Your task to perform on an android device: Empty the shopping cart on target.com. Search for macbook pro 13 inch on target.com, select the first entry, and add it to the cart. Image 0: 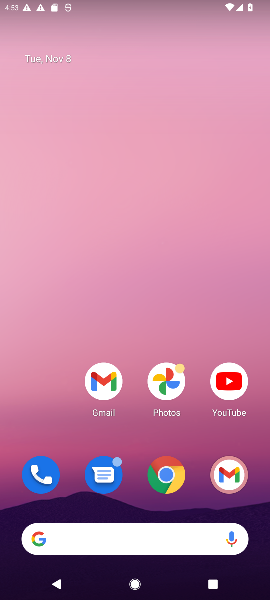
Step 0: drag from (81, 548) to (94, 158)
Your task to perform on an android device: Empty the shopping cart on target.com. Search for macbook pro 13 inch on target.com, select the first entry, and add it to the cart. Image 1: 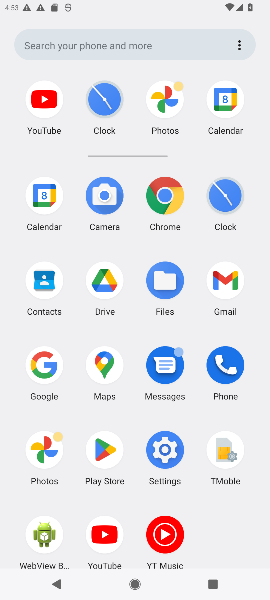
Step 1: click (30, 362)
Your task to perform on an android device: Empty the shopping cart on target.com. Search for macbook pro 13 inch on target.com, select the first entry, and add it to the cart. Image 2: 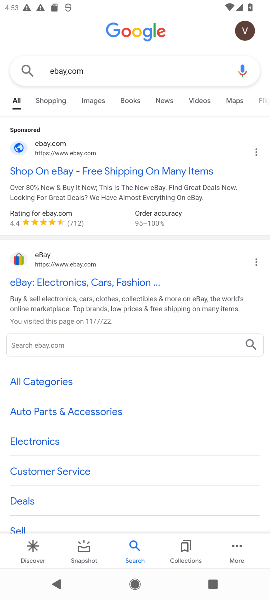
Step 2: click (138, 61)
Your task to perform on an android device: Empty the shopping cart on target.com. Search for macbook pro 13 inch on target.com, select the first entry, and add it to the cart. Image 3: 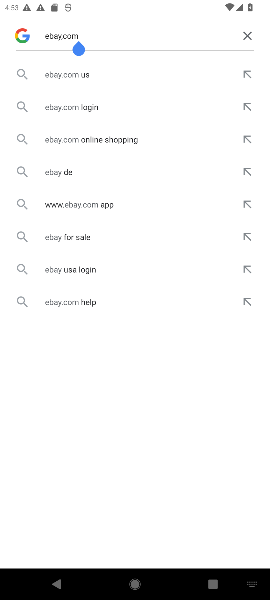
Step 3: click (247, 36)
Your task to perform on an android device: Empty the shopping cart on target.com. Search for macbook pro 13 inch on target.com, select the first entry, and add it to the cart. Image 4: 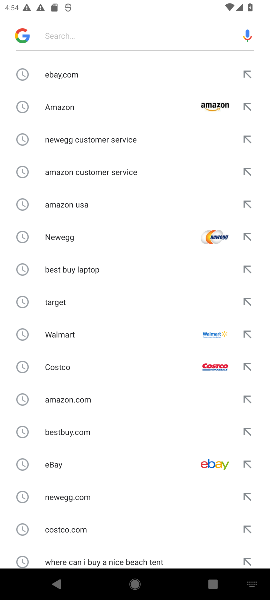
Step 4: click (132, 29)
Your task to perform on an android device: Empty the shopping cart on target.com. Search for macbook pro 13 inch on target.com, select the first entry, and add it to the cart. Image 5: 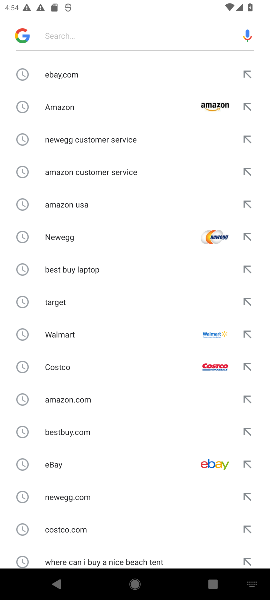
Step 5: type "target "
Your task to perform on an android device: Empty the shopping cart on target.com. Search for macbook pro 13 inch on target.com, select the first entry, and add it to the cart. Image 6: 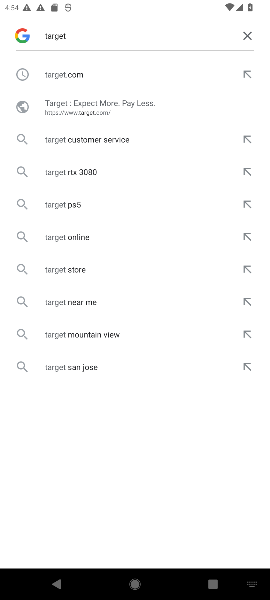
Step 6: click (69, 66)
Your task to perform on an android device: Empty the shopping cart on target.com. Search for macbook pro 13 inch on target.com, select the first entry, and add it to the cart. Image 7: 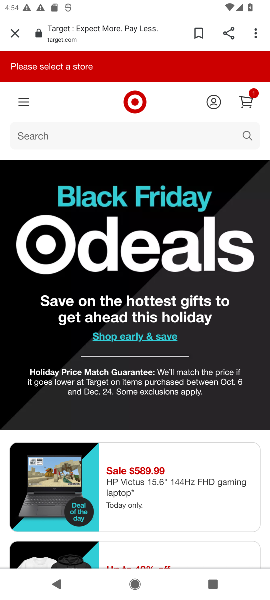
Step 7: click (109, 136)
Your task to perform on an android device: Empty the shopping cart on target.com. Search for macbook pro 13 inch on target.com, select the first entry, and add it to the cart. Image 8: 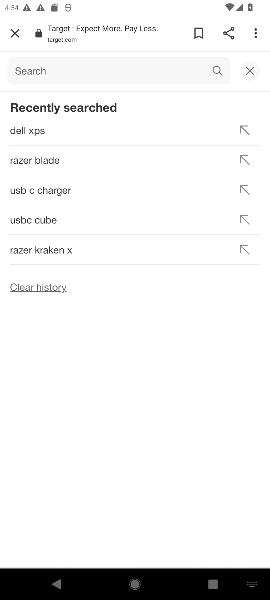
Step 8: type "macbook pro 13 inch  "
Your task to perform on an android device: Empty the shopping cart on target.com. Search for macbook pro 13 inch on target.com, select the first entry, and add it to the cart. Image 9: 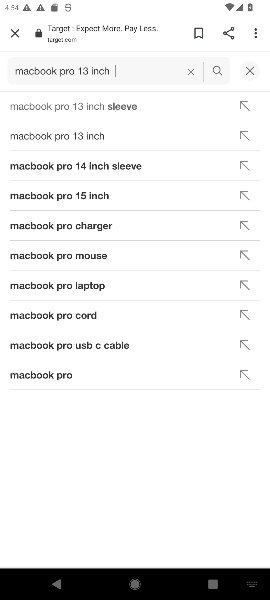
Step 9: click (65, 136)
Your task to perform on an android device: Empty the shopping cart on target.com. Search for macbook pro 13 inch on target.com, select the first entry, and add it to the cart. Image 10: 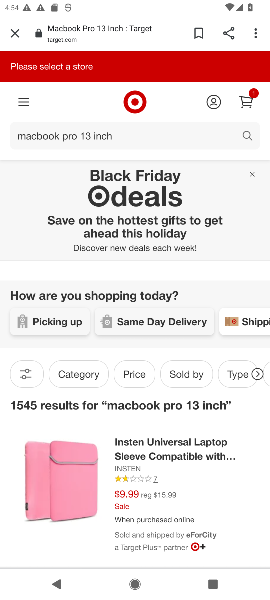
Step 10: click (238, 129)
Your task to perform on an android device: Empty the shopping cart on target.com. Search for macbook pro 13 inch on target.com, select the first entry, and add it to the cart. Image 11: 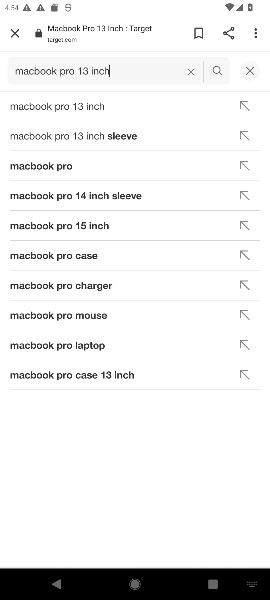
Step 11: click (92, 108)
Your task to perform on an android device: Empty the shopping cart on target.com. Search for macbook pro 13 inch on target.com, select the first entry, and add it to the cart. Image 12: 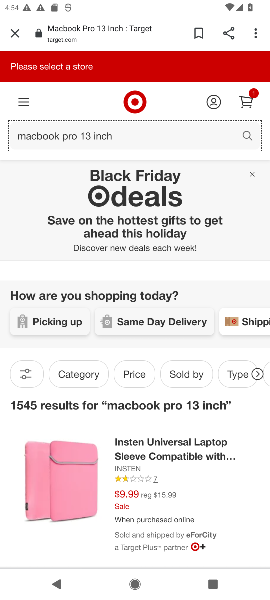
Step 12: drag from (110, 411) to (243, 451)
Your task to perform on an android device: Empty the shopping cart on target.com. Search for macbook pro 13 inch on target.com, select the first entry, and add it to the cart. Image 13: 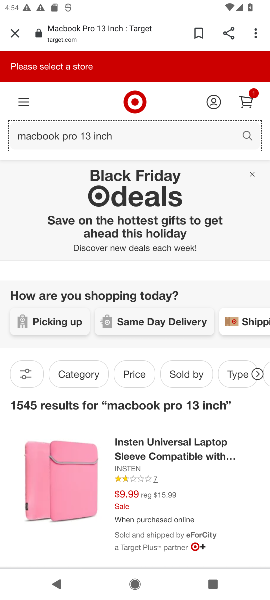
Step 13: drag from (158, 513) to (157, 213)
Your task to perform on an android device: Empty the shopping cart on target.com. Search for macbook pro 13 inch on target.com, select the first entry, and add it to the cart. Image 14: 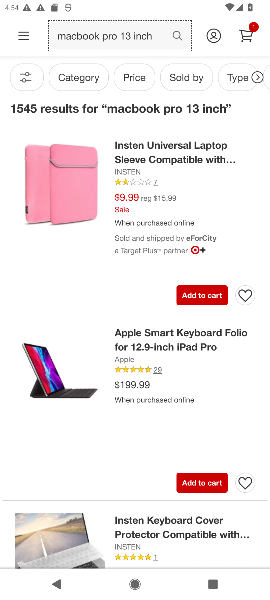
Step 14: click (195, 480)
Your task to perform on an android device: Empty the shopping cart on target.com. Search for macbook pro 13 inch on target.com, select the first entry, and add it to the cart. Image 15: 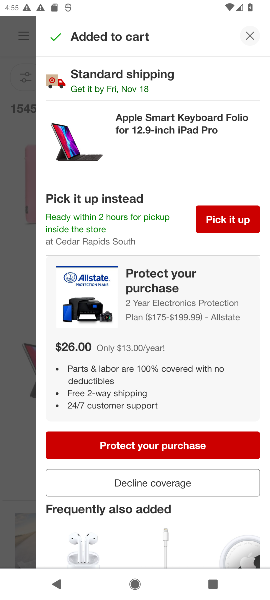
Step 15: click (224, 216)
Your task to perform on an android device: Empty the shopping cart on target.com. Search for macbook pro 13 inch on target.com, select the first entry, and add it to the cart. Image 16: 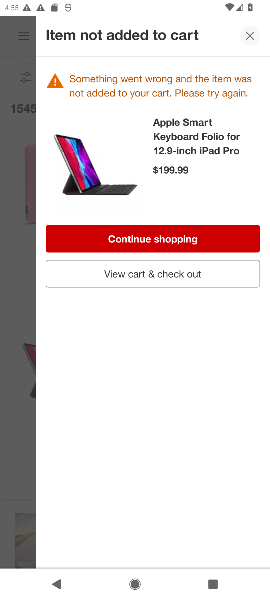
Step 16: press back button
Your task to perform on an android device: Empty the shopping cart on target.com. Search for macbook pro 13 inch on target.com, select the first entry, and add it to the cart. Image 17: 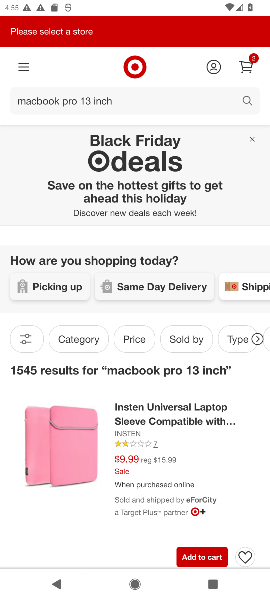
Step 17: drag from (145, 362) to (144, 180)
Your task to perform on an android device: Empty the shopping cart on target.com. Search for macbook pro 13 inch on target.com, select the first entry, and add it to the cart. Image 18: 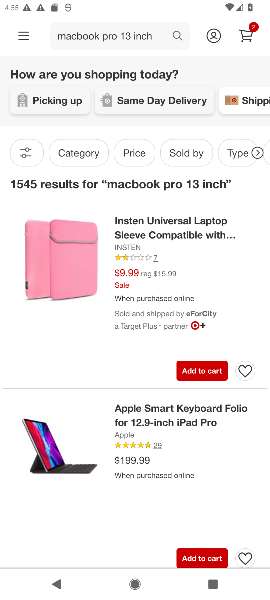
Step 18: drag from (148, 480) to (150, 224)
Your task to perform on an android device: Empty the shopping cart on target.com. Search for macbook pro 13 inch on target.com, select the first entry, and add it to the cart. Image 19: 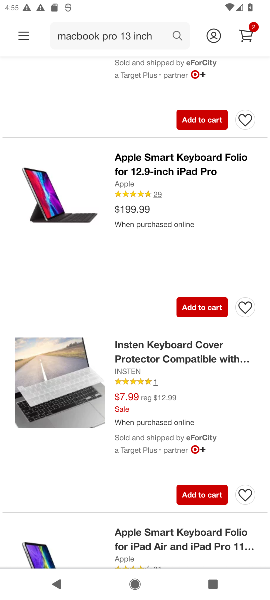
Step 19: drag from (140, 529) to (144, 267)
Your task to perform on an android device: Empty the shopping cart on target.com. Search for macbook pro 13 inch on target.com, select the first entry, and add it to the cart. Image 20: 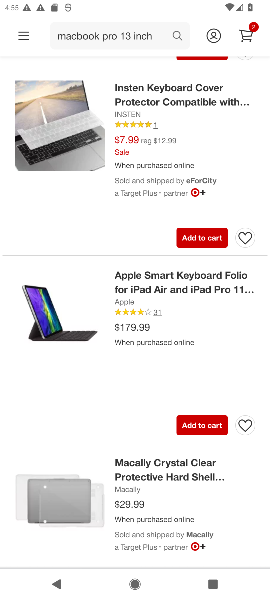
Step 20: click (193, 415)
Your task to perform on an android device: Empty the shopping cart on target.com. Search for macbook pro 13 inch on target.com, select the first entry, and add it to the cart. Image 21: 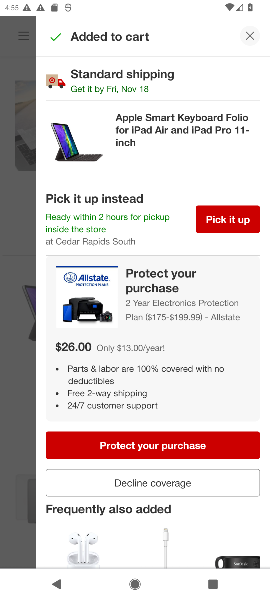
Step 21: click (221, 220)
Your task to perform on an android device: Empty the shopping cart on target.com. Search for macbook pro 13 inch on target.com, select the first entry, and add it to the cart. Image 22: 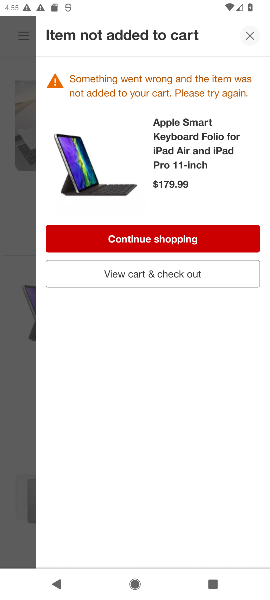
Step 22: click (255, 29)
Your task to perform on an android device: Empty the shopping cart on target.com. Search for macbook pro 13 inch on target.com, select the first entry, and add it to the cart. Image 23: 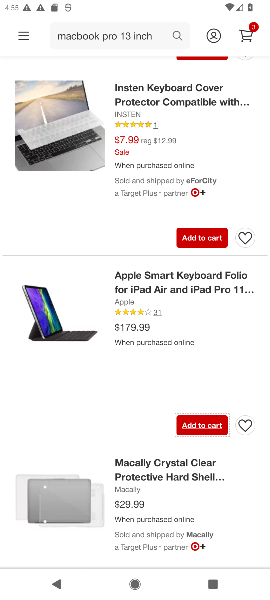
Step 23: drag from (119, 444) to (142, 171)
Your task to perform on an android device: Empty the shopping cart on target.com. Search for macbook pro 13 inch on target.com, select the first entry, and add it to the cart. Image 24: 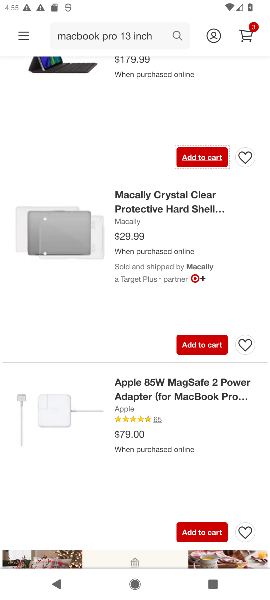
Step 24: drag from (139, 493) to (148, 151)
Your task to perform on an android device: Empty the shopping cart on target.com. Search for macbook pro 13 inch on target.com, select the first entry, and add it to the cart. Image 25: 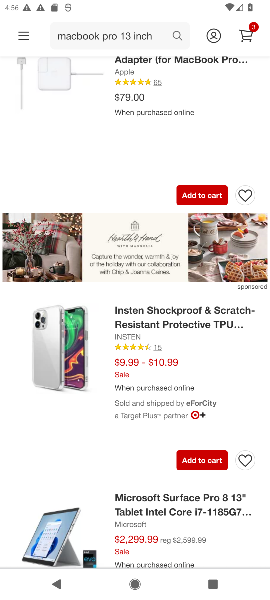
Step 25: drag from (128, 526) to (137, 259)
Your task to perform on an android device: Empty the shopping cart on target.com. Search for macbook pro 13 inch on target.com, select the first entry, and add it to the cart. Image 26: 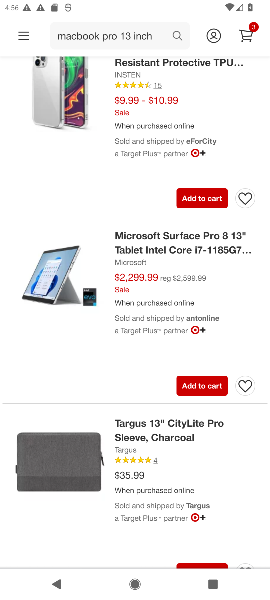
Step 26: click (206, 381)
Your task to perform on an android device: Empty the shopping cart on target.com. Search for macbook pro 13 inch on target.com, select the first entry, and add it to the cart. Image 27: 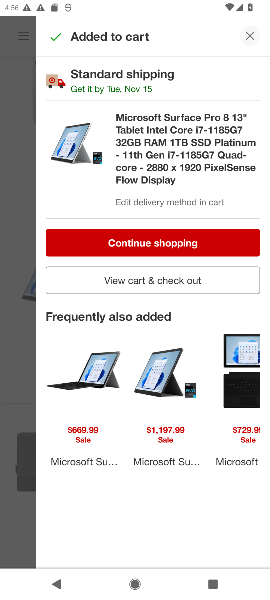
Step 27: task complete